Your task to perform on an android device: Turn off the flashlight Image 0: 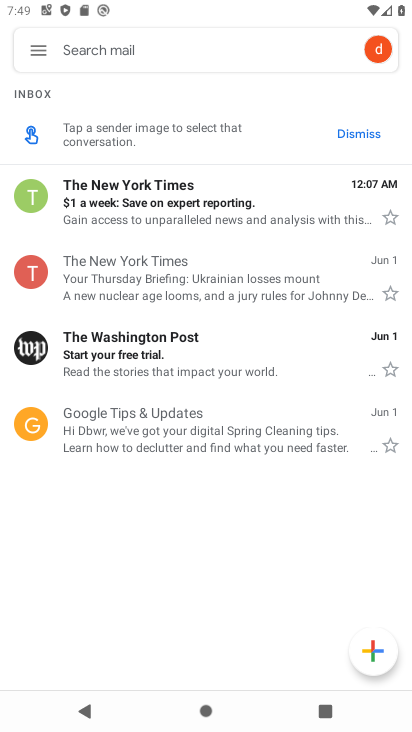
Step 0: press home button
Your task to perform on an android device: Turn off the flashlight Image 1: 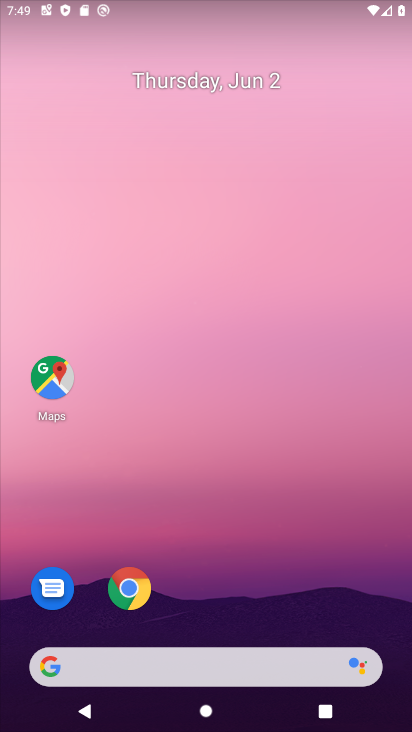
Step 1: task complete